Your task to perform on an android device: Open ESPN.com Image 0: 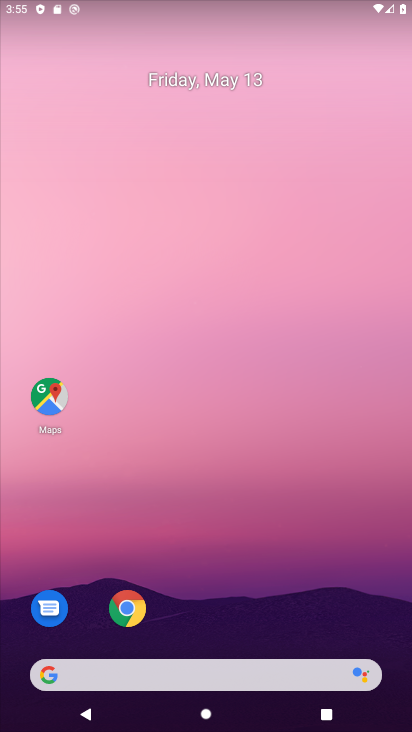
Step 0: drag from (203, 655) to (252, 0)
Your task to perform on an android device: Open ESPN.com Image 1: 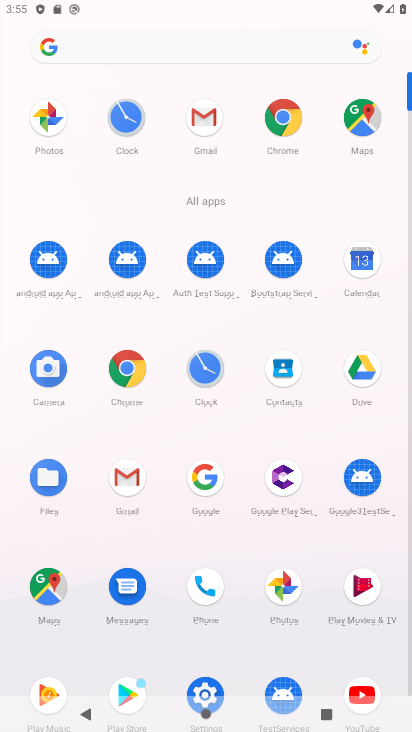
Step 1: click (125, 364)
Your task to perform on an android device: Open ESPN.com Image 2: 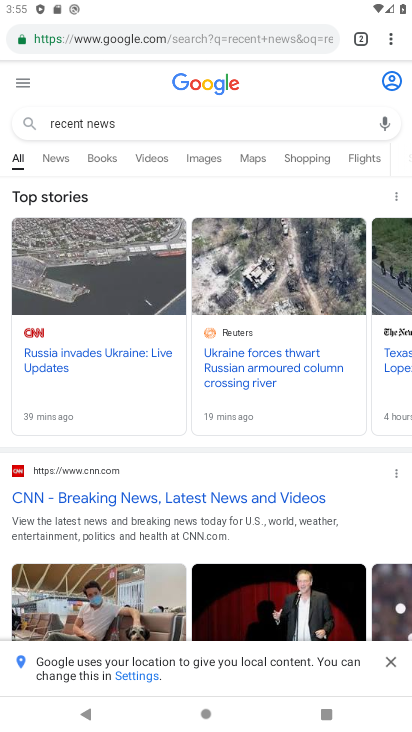
Step 2: click (197, 33)
Your task to perform on an android device: Open ESPN.com Image 3: 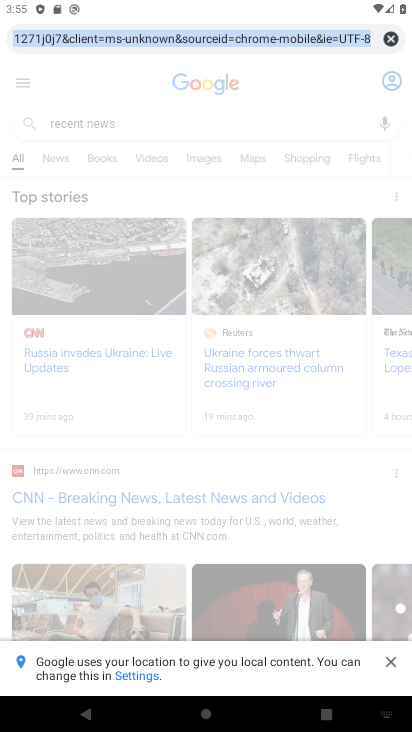
Step 3: click (388, 39)
Your task to perform on an android device: Open ESPN.com Image 4: 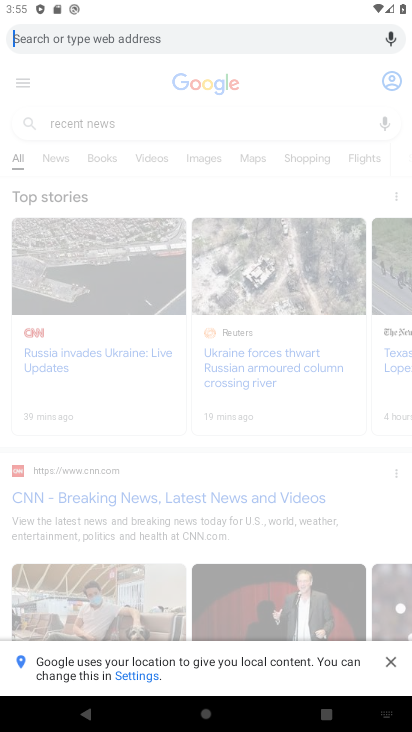
Step 4: type "espn.com"
Your task to perform on an android device: Open ESPN.com Image 5: 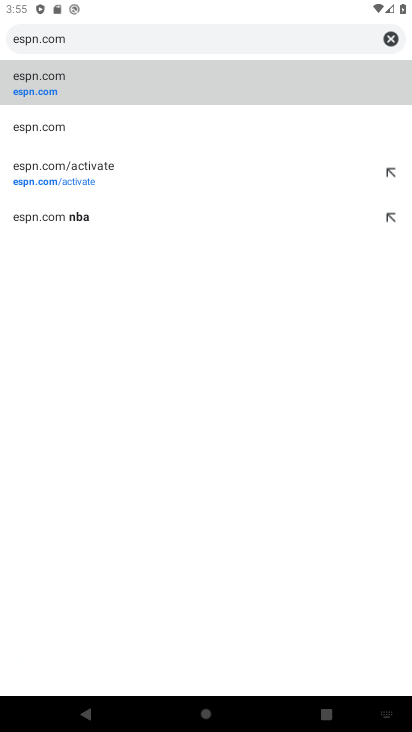
Step 5: click (86, 71)
Your task to perform on an android device: Open ESPN.com Image 6: 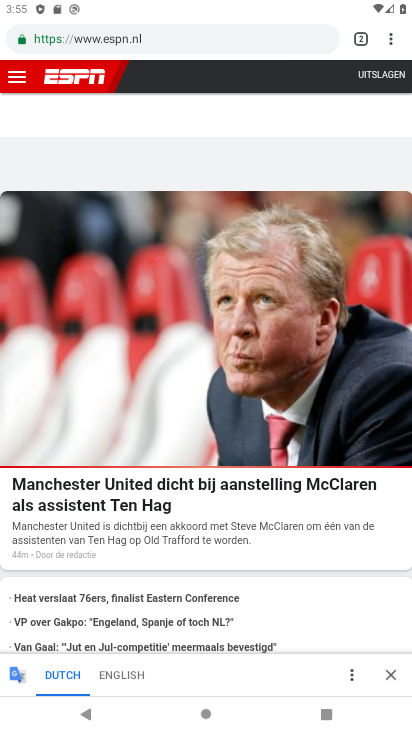
Step 6: task complete